Your task to perform on an android device: Open ESPN.com Image 0: 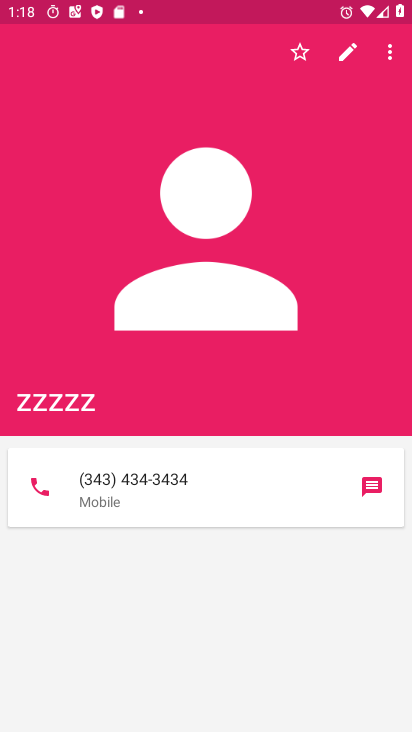
Step 0: press home button
Your task to perform on an android device: Open ESPN.com Image 1: 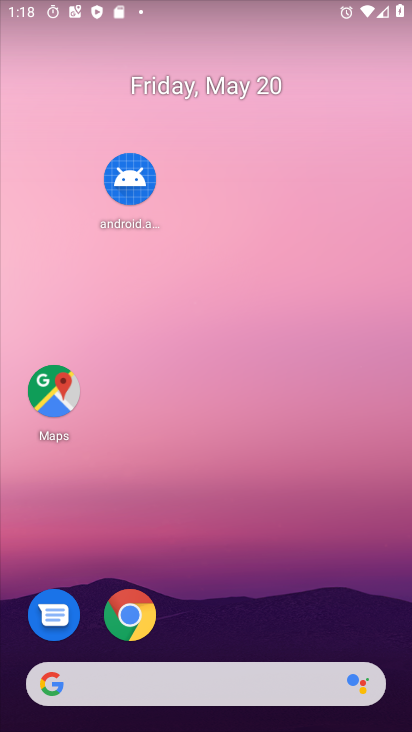
Step 1: click (145, 617)
Your task to perform on an android device: Open ESPN.com Image 2: 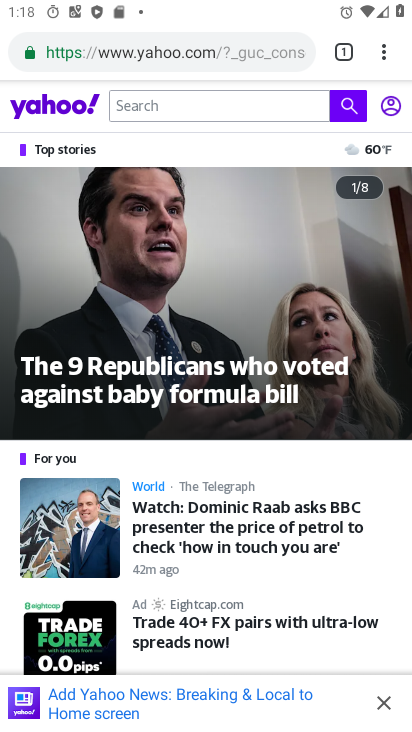
Step 2: click (235, 49)
Your task to perform on an android device: Open ESPN.com Image 3: 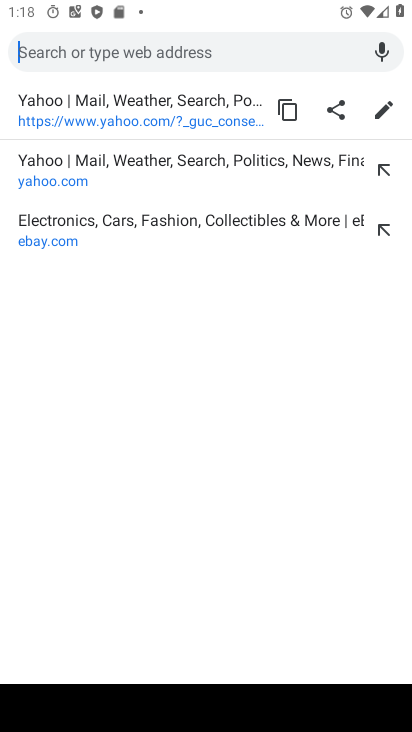
Step 3: type "espn.com"
Your task to perform on an android device: Open ESPN.com Image 4: 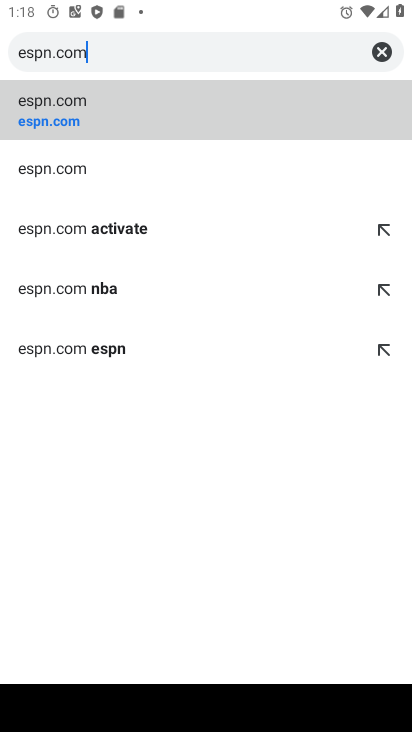
Step 4: click (112, 109)
Your task to perform on an android device: Open ESPN.com Image 5: 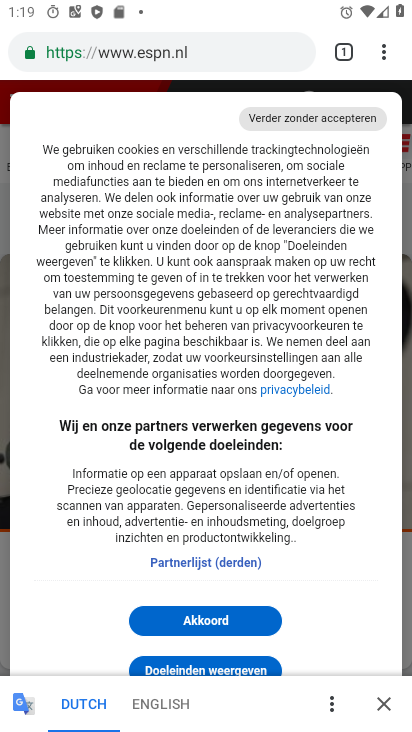
Step 5: click (112, 109)
Your task to perform on an android device: Open ESPN.com Image 6: 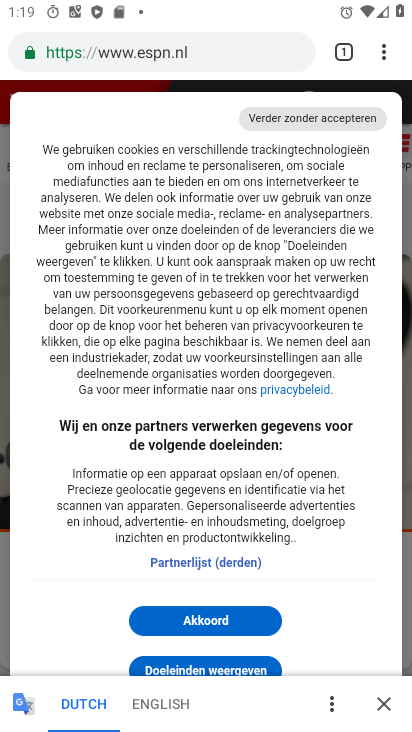
Step 6: task complete